Your task to perform on an android device: Open CNN.com Image 0: 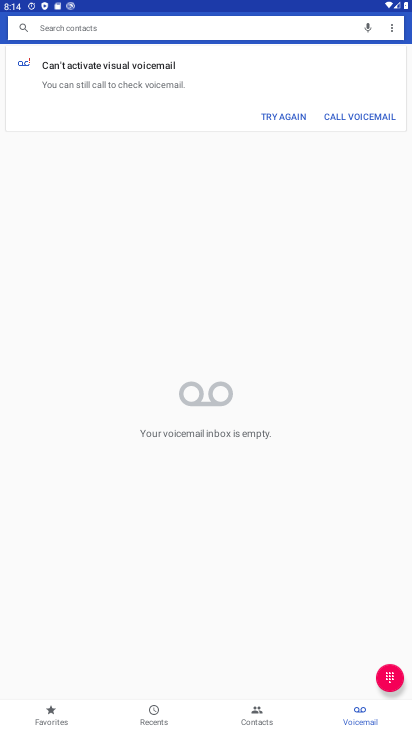
Step 0: press home button
Your task to perform on an android device: Open CNN.com Image 1: 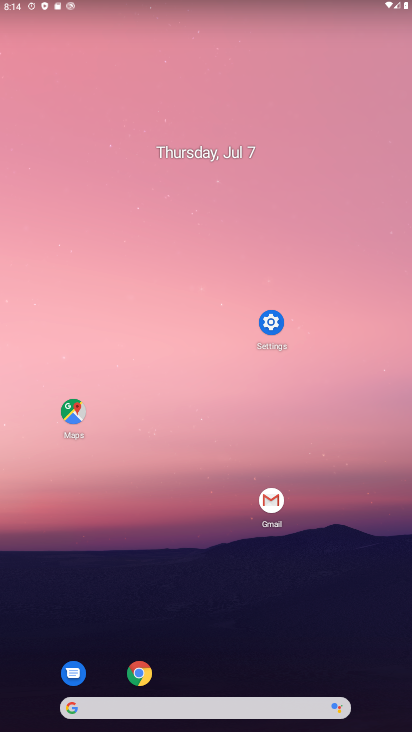
Step 1: click (137, 664)
Your task to perform on an android device: Open CNN.com Image 2: 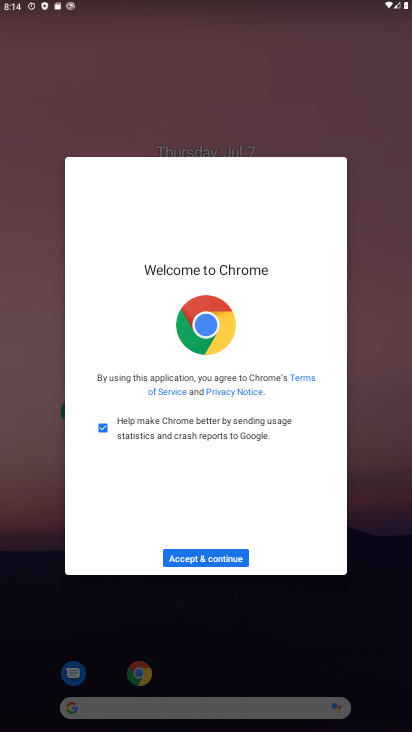
Step 2: click (183, 552)
Your task to perform on an android device: Open CNN.com Image 3: 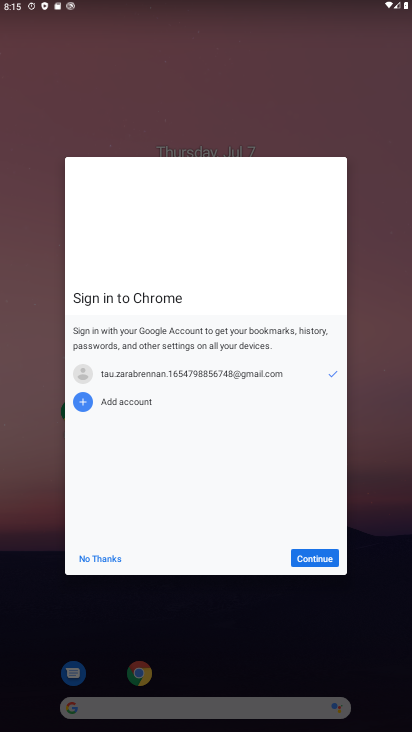
Step 3: click (325, 552)
Your task to perform on an android device: Open CNN.com Image 4: 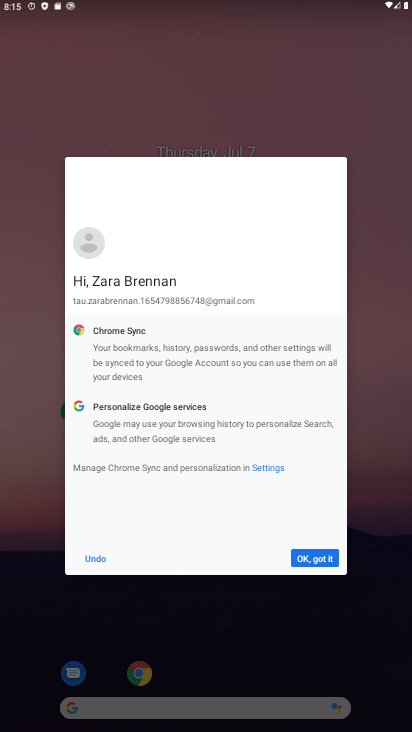
Step 4: click (325, 552)
Your task to perform on an android device: Open CNN.com Image 5: 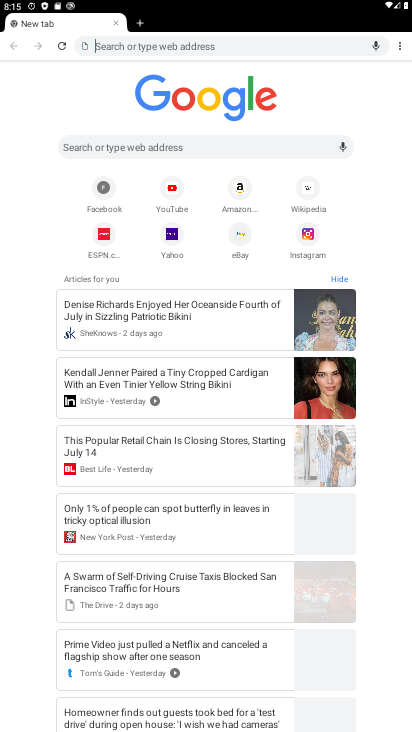
Step 5: click (184, 139)
Your task to perform on an android device: Open CNN.com Image 6: 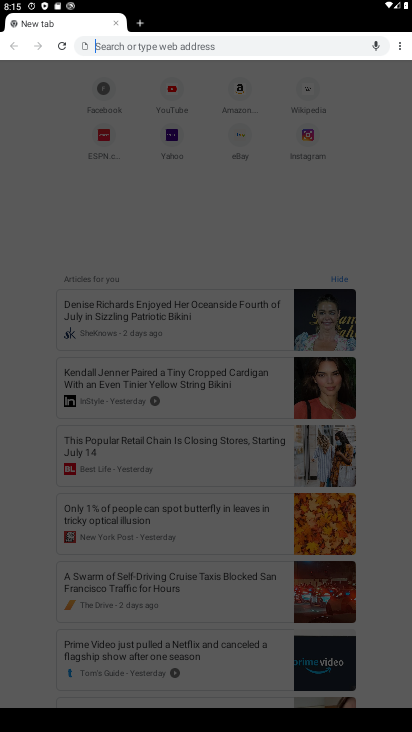
Step 6: type "CNN.com"
Your task to perform on an android device: Open CNN.com Image 7: 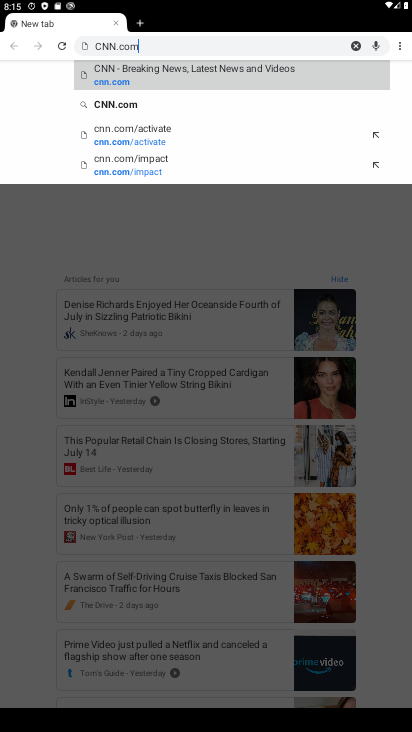
Step 7: click (121, 96)
Your task to perform on an android device: Open CNN.com Image 8: 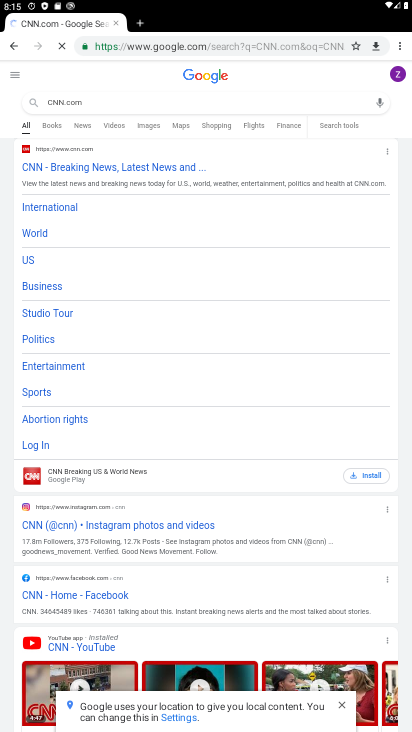
Step 8: task complete